Your task to perform on an android device: Open Android settings Image 0: 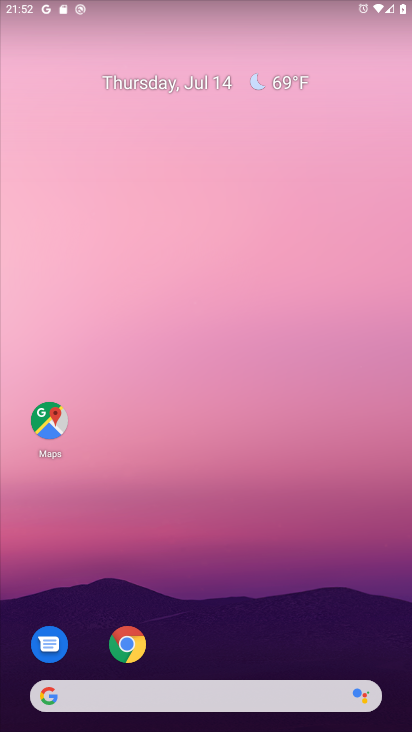
Step 0: drag from (302, 112) to (406, 245)
Your task to perform on an android device: Open Android settings Image 1: 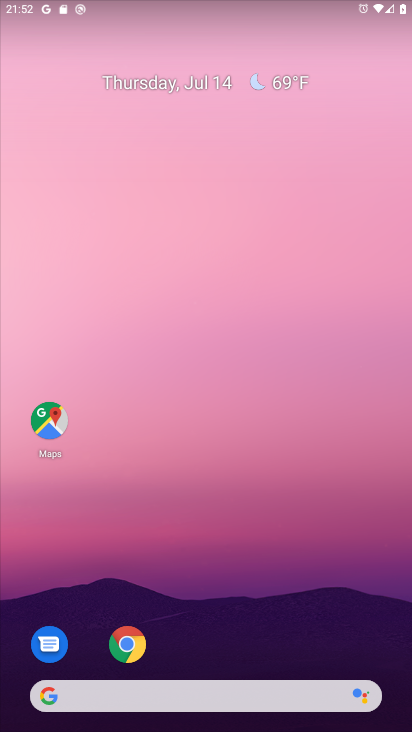
Step 1: drag from (185, 643) to (202, 93)
Your task to perform on an android device: Open Android settings Image 2: 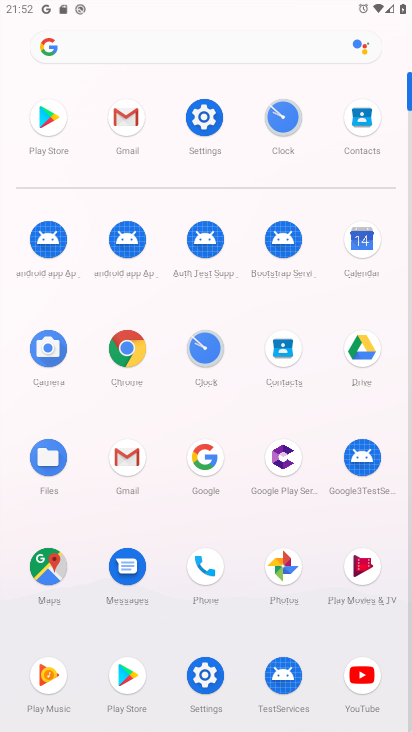
Step 2: click (206, 686)
Your task to perform on an android device: Open Android settings Image 3: 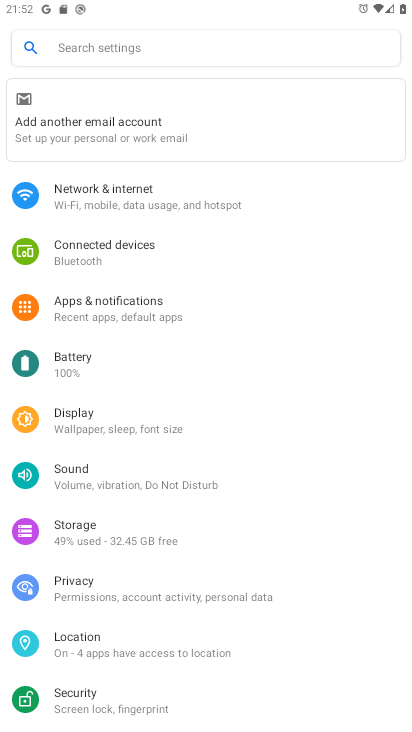
Step 3: task complete